Your task to perform on an android device: What's the weather going to be tomorrow? Image 0: 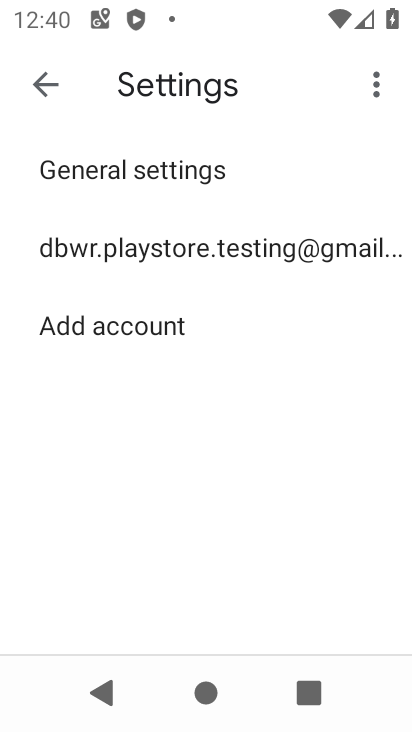
Step 0: press home button
Your task to perform on an android device: What's the weather going to be tomorrow? Image 1: 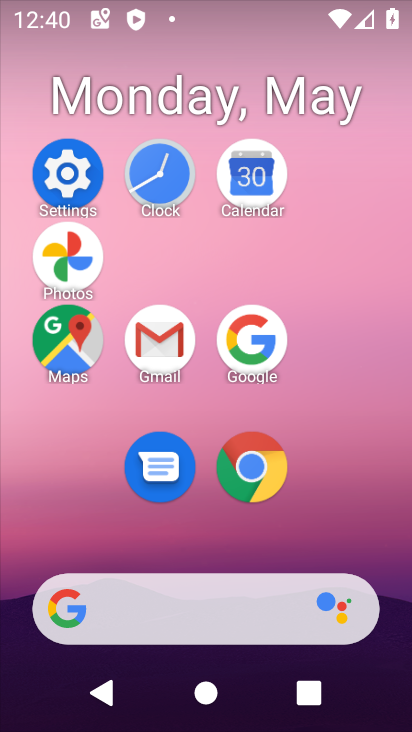
Step 1: click (280, 348)
Your task to perform on an android device: What's the weather going to be tomorrow? Image 2: 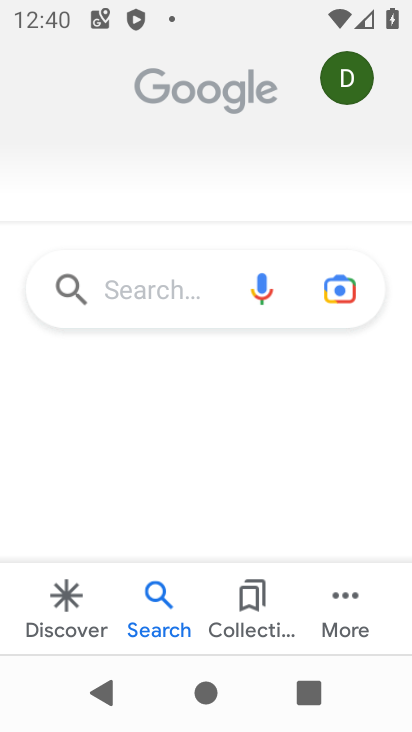
Step 2: click (172, 289)
Your task to perform on an android device: What's the weather going to be tomorrow? Image 3: 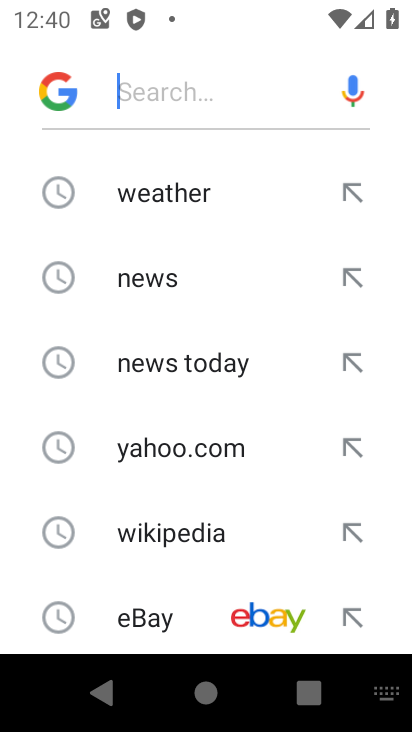
Step 3: click (155, 199)
Your task to perform on an android device: What's the weather going to be tomorrow? Image 4: 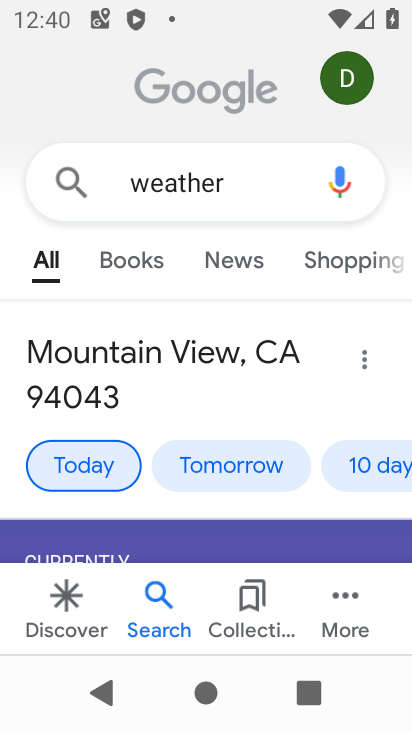
Step 4: click (251, 474)
Your task to perform on an android device: What's the weather going to be tomorrow? Image 5: 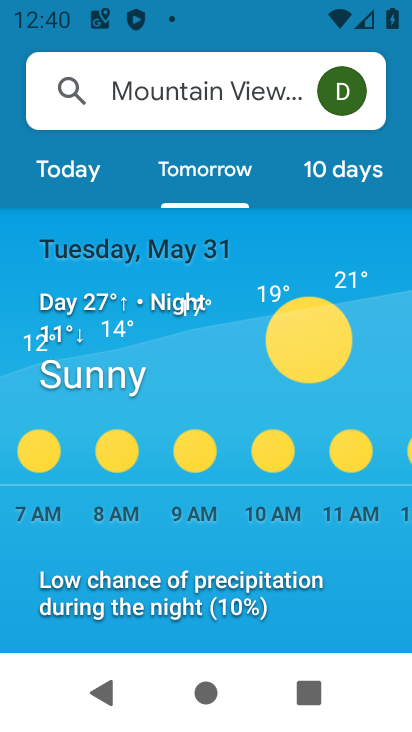
Step 5: task complete